Your task to perform on an android device: Open Wikipedia Image 0: 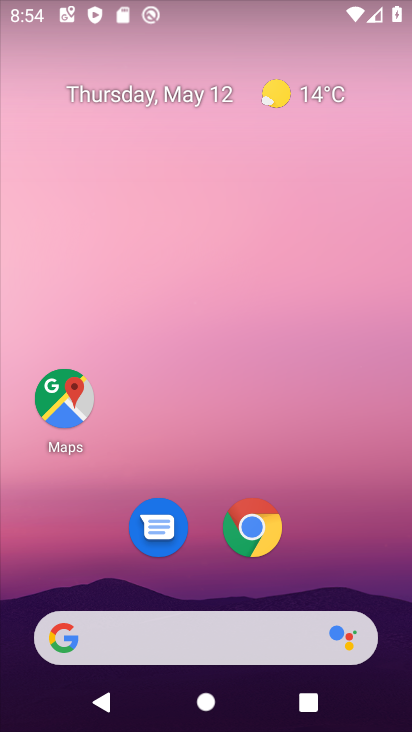
Step 0: drag from (366, 561) to (356, 149)
Your task to perform on an android device: Open Wikipedia Image 1: 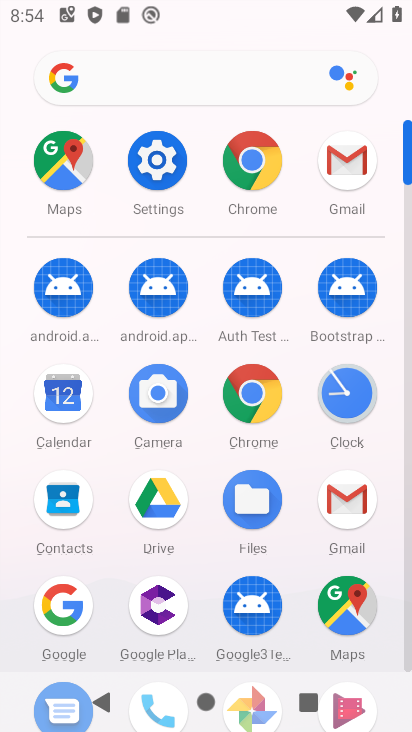
Step 1: click (259, 195)
Your task to perform on an android device: Open Wikipedia Image 2: 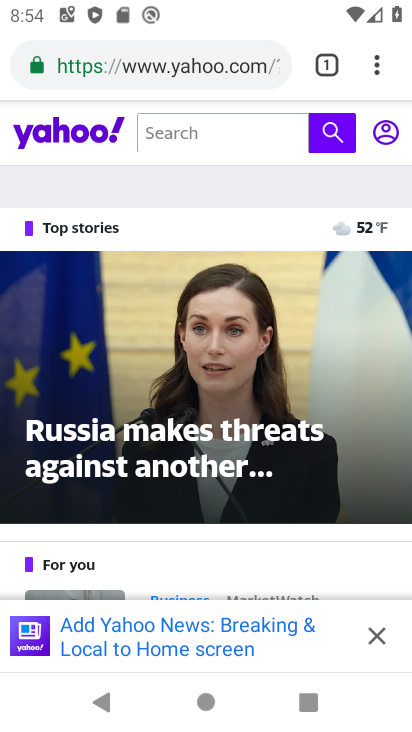
Step 2: click (200, 76)
Your task to perform on an android device: Open Wikipedia Image 3: 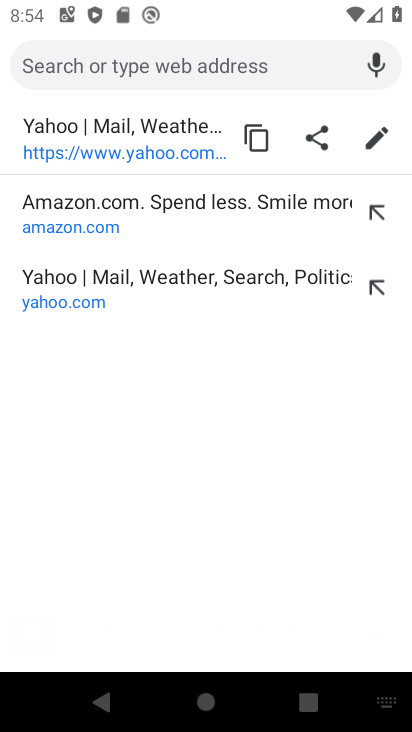
Step 3: type "wikipedia"
Your task to perform on an android device: Open Wikipedia Image 4: 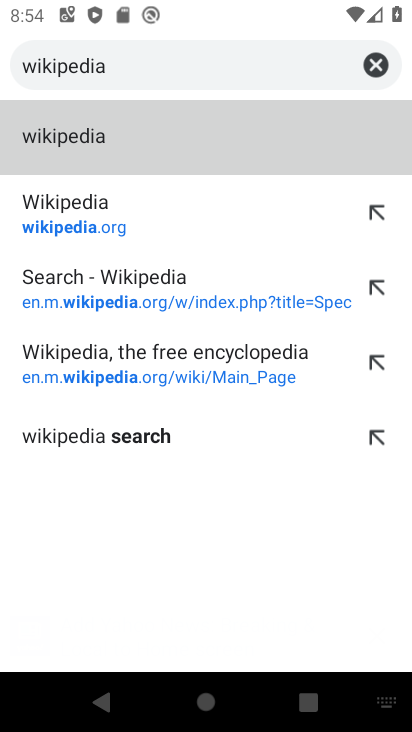
Step 4: click (93, 204)
Your task to perform on an android device: Open Wikipedia Image 5: 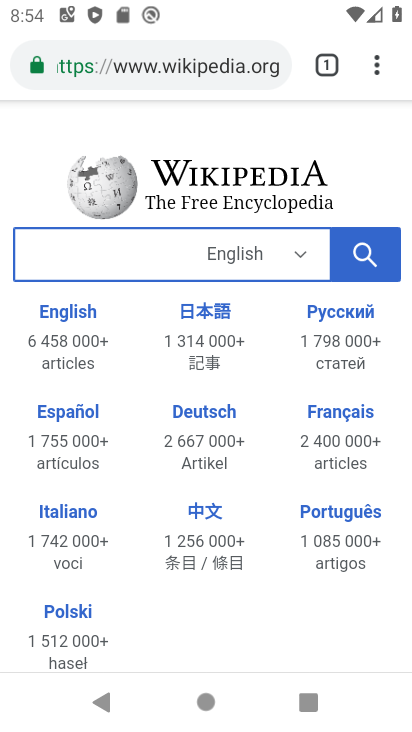
Step 5: task complete